Your task to perform on an android device: What's the weather? Image 0: 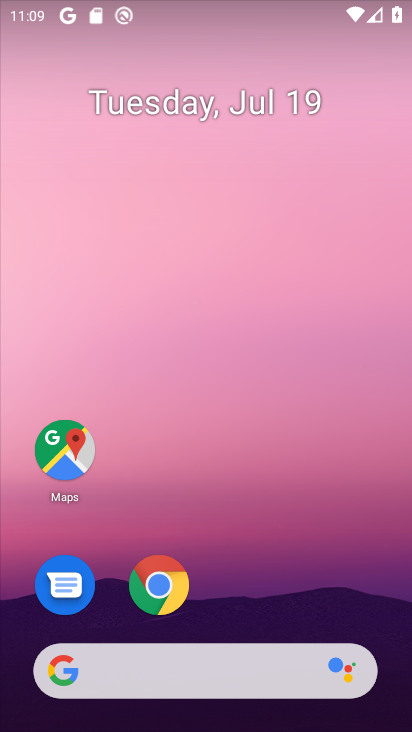
Step 0: click (190, 663)
Your task to perform on an android device: What's the weather? Image 1: 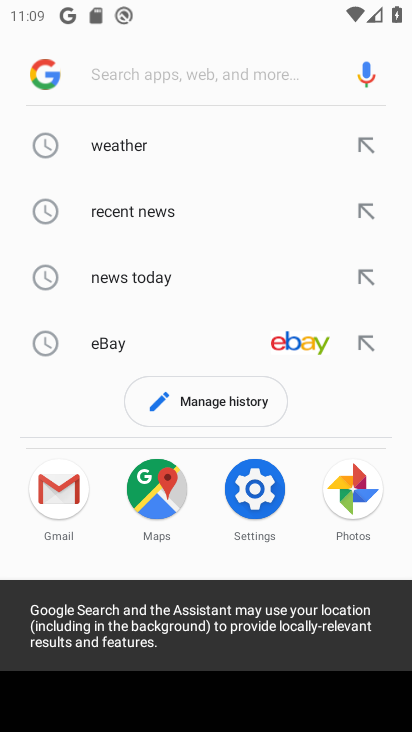
Step 1: click (136, 144)
Your task to perform on an android device: What's the weather? Image 2: 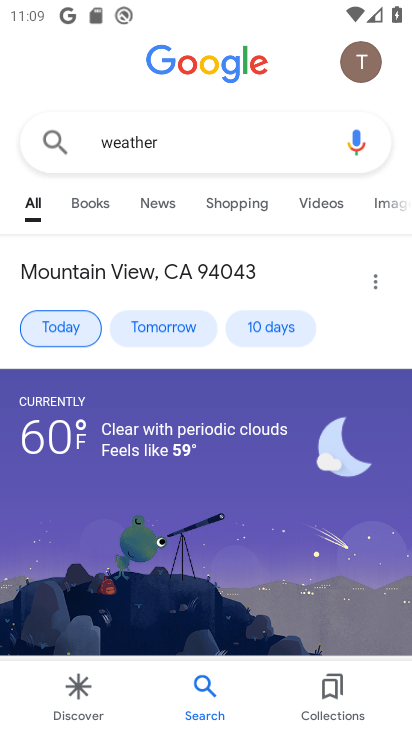
Step 2: task complete